Your task to perform on an android device: Open privacy settings Image 0: 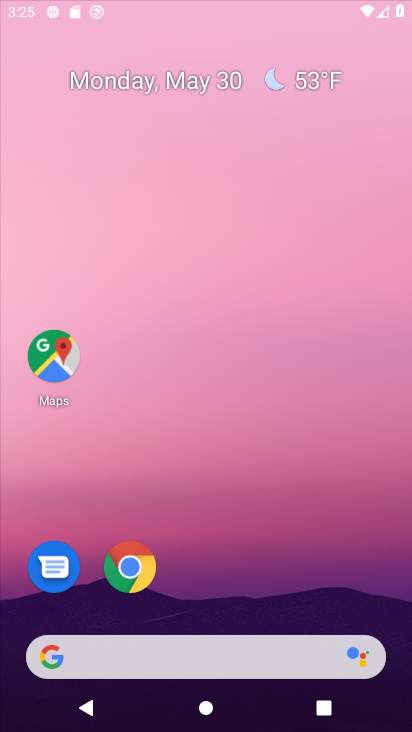
Step 0: click (282, 647)
Your task to perform on an android device: Open privacy settings Image 1: 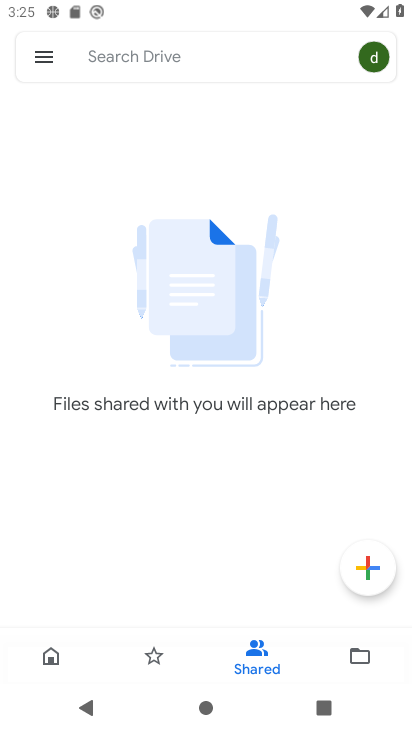
Step 1: press home button
Your task to perform on an android device: Open privacy settings Image 2: 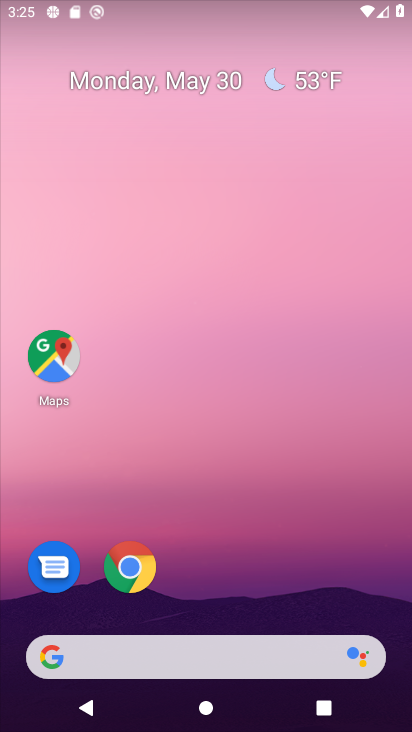
Step 2: drag from (317, 581) to (347, 35)
Your task to perform on an android device: Open privacy settings Image 3: 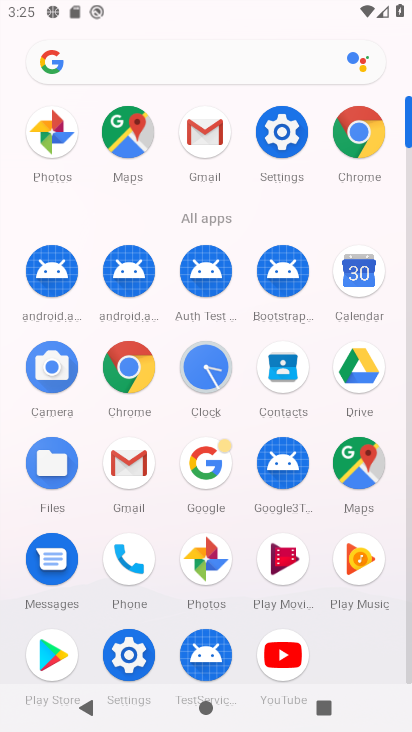
Step 3: click (294, 144)
Your task to perform on an android device: Open privacy settings Image 4: 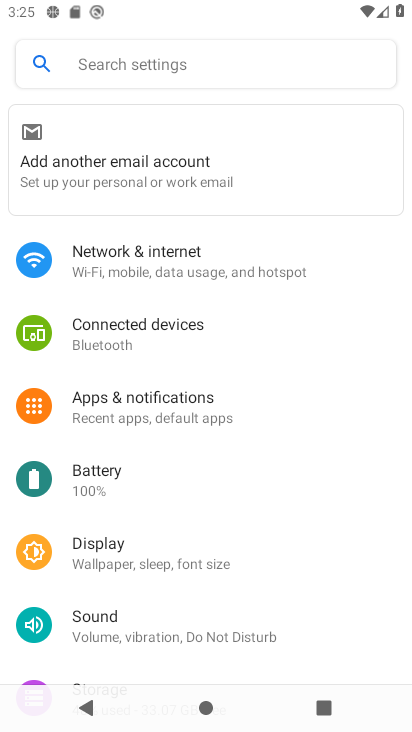
Step 4: drag from (172, 632) to (234, 250)
Your task to perform on an android device: Open privacy settings Image 5: 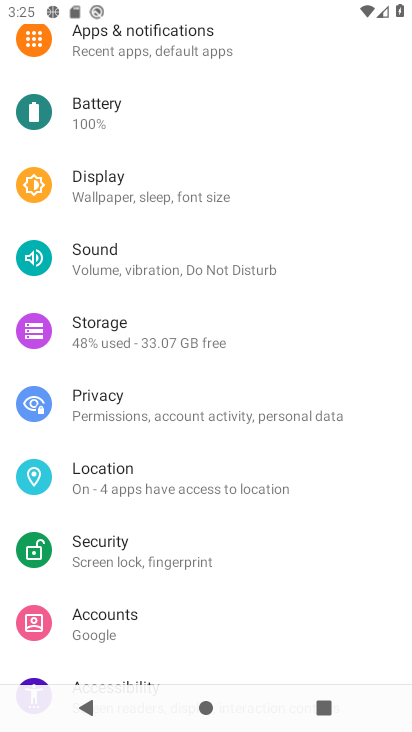
Step 5: click (212, 414)
Your task to perform on an android device: Open privacy settings Image 6: 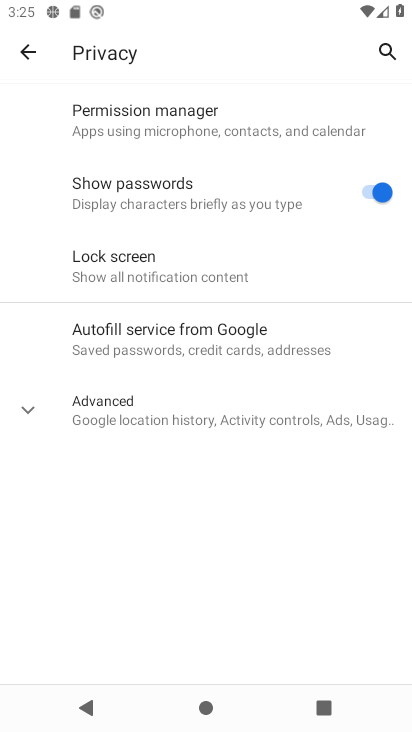
Step 6: task complete